Your task to perform on an android device: open app "TextNow: Call + Text Unlimited" Image 0: 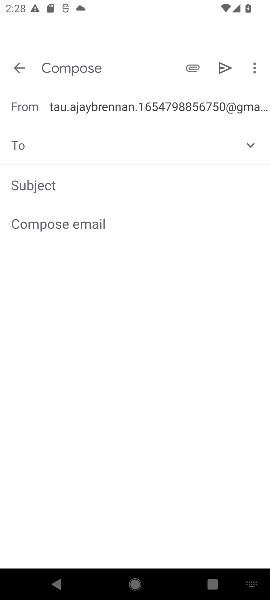
Step 0: press home button
Your task to perform on an android device: open app "TextNow: Call + Text Unlimited" Image 1: 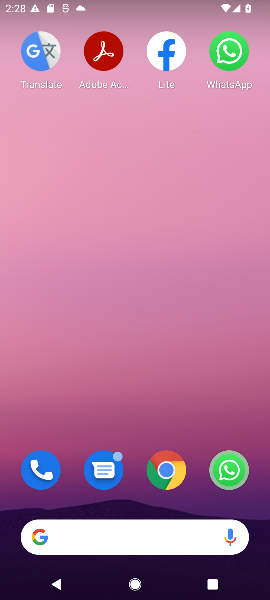
Step 1: drag from (127, 517) to (141, 236)
Your task to perform on an android device: open app "TextNow: Call + Text Unlimited" Image 2: 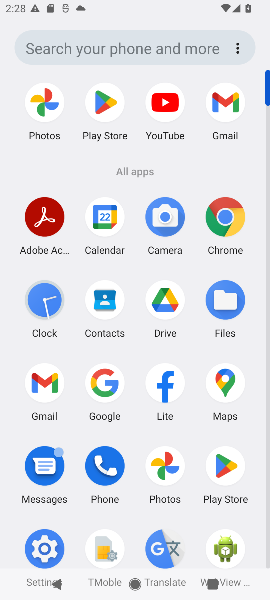
Step 2: click (105, 96)
Your task to perform on an android device: open app "TextNow: Call + Text Unlimited" Image 3: 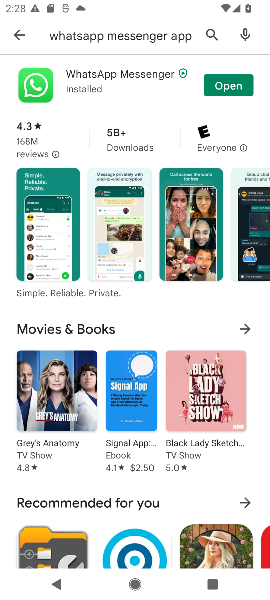
Step 3: click (26, 34)
Your task to perform on an android device: open app "TextNow: Call + Text Unlimited" Image 4: 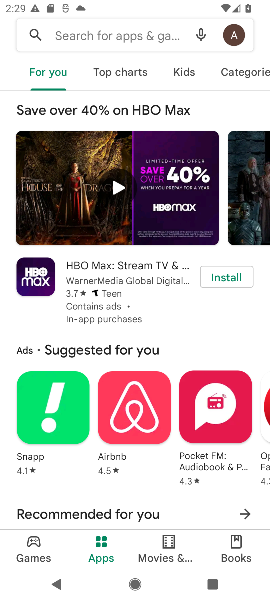
Step 4: click (108, 33)
Your task to perform on an android device: open app "TextNow: Call + Text Unlimited" Image 5: 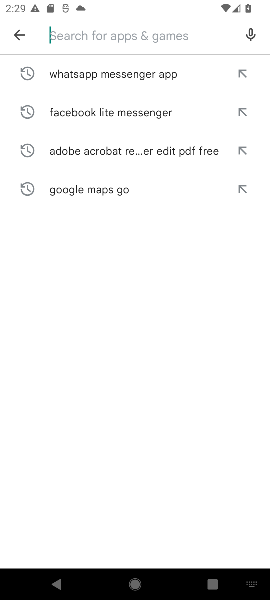
Step 5: type "TextNow: Call + Text Unlimited "
Your task to perform on an android device: open app "TextNow: Call + Text Unlimited" Image 6: 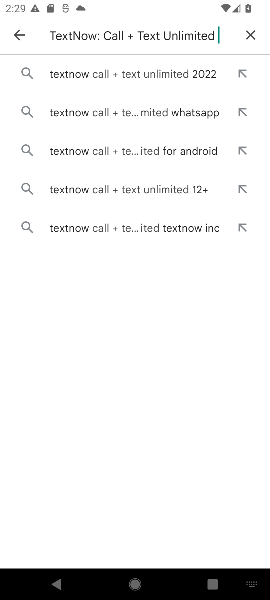
Step 6: click (170, 74)
Your task to perform on an android device: open app "TextNow: Call + Text Unlimited" Image 7: 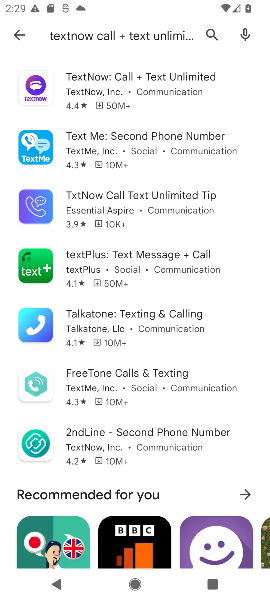
Step 7: click (98, 89)
Your task to perform on an android device: open app "TextNow: Call + Text Unlimited" Image 8: 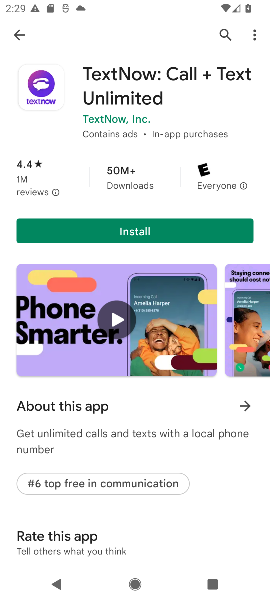
Step 8: click (150, 220)
Your task to perform on an android device: open app "TextNow: Call + Text Unlimited" Image 9: 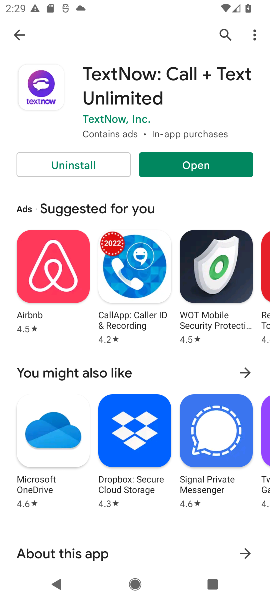
Step 9: click (166, 168)
Your task to perform on an android device: open app "TextNow: Call + Text Unlimited" Image 10: 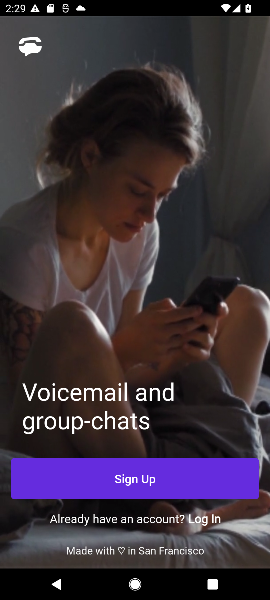
Step 10: task complete